Your task to perform on an android device: turn off notifications settings in the gmail app Image 0: 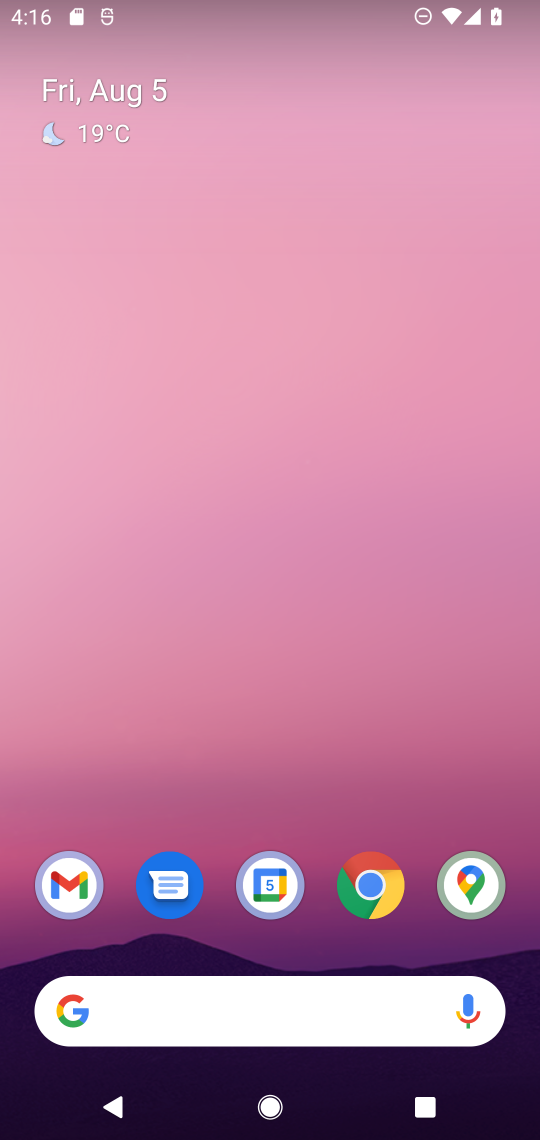
Step 0: drag from (312, 962) to (255, 167)
Your task to perform on an android device: turn off notifications settings in the gmail app Image 1: 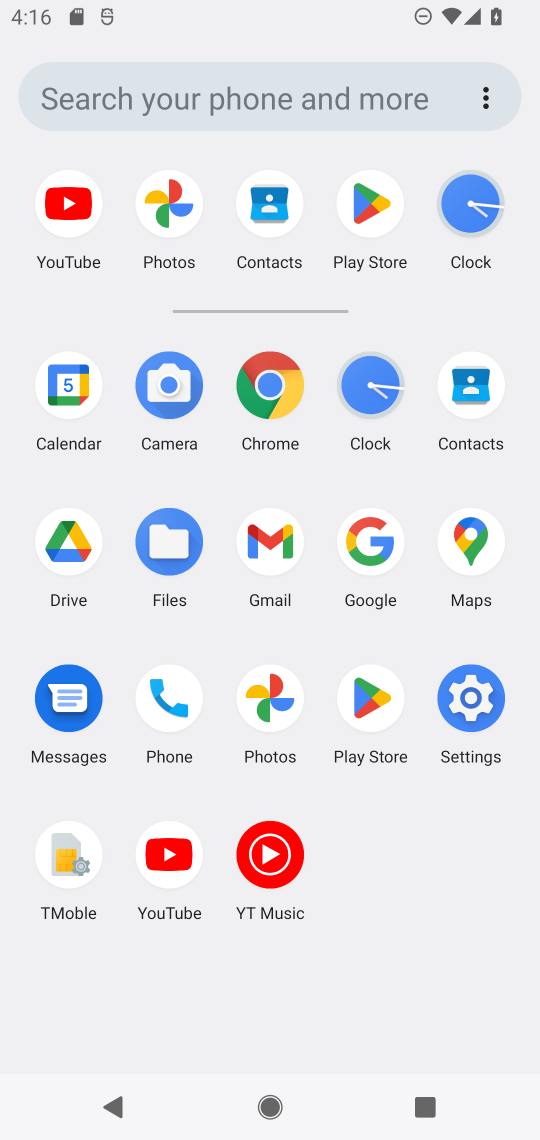
Step 1: click (268, 539)
Your task to perform on an android device: turn off notifications settings in the gmail app Image 2: 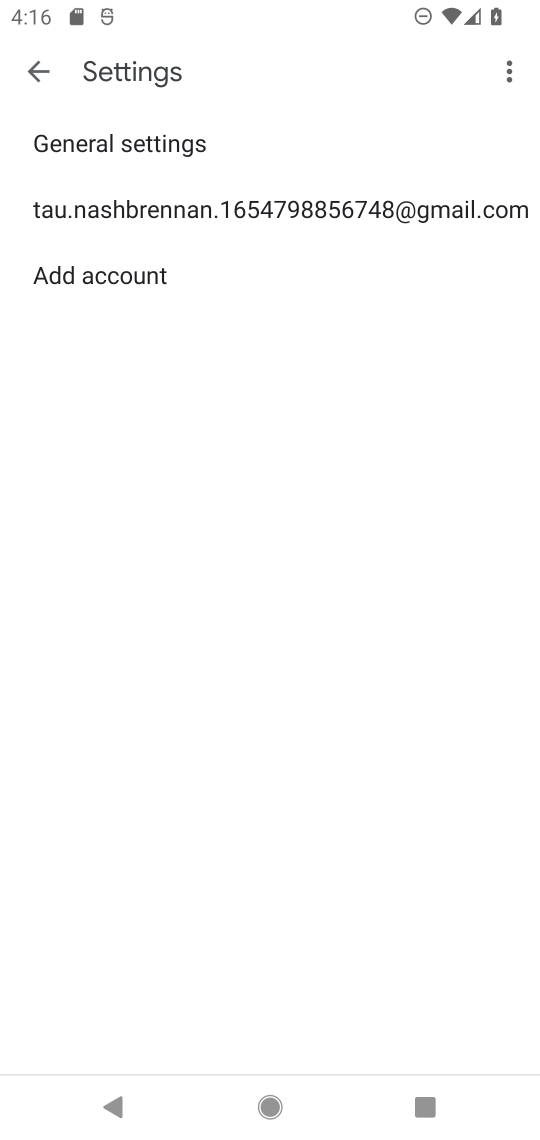
Step 2: click (141, 211)
Your task to perform on an android device: turn off notifications settings in the gmail app Image 3: 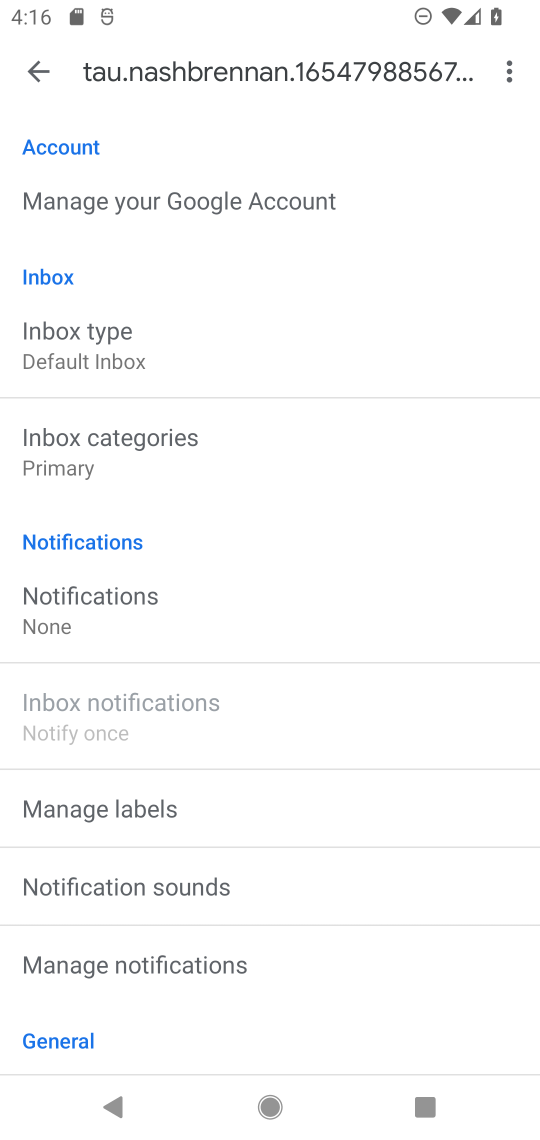
Step 3: click (97, 595)
Your task to perform on an android device: turn off notifications settings in the gmail app Image 4: 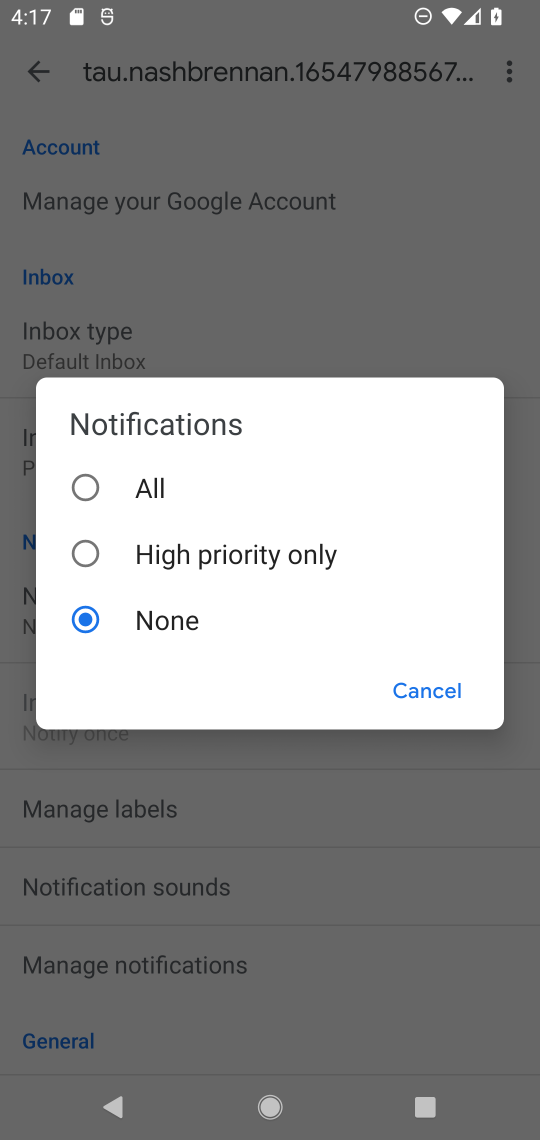
Step 4: task complete